Your task to perform on an android device: Add razer thresher to the cart on amazon Image 0: 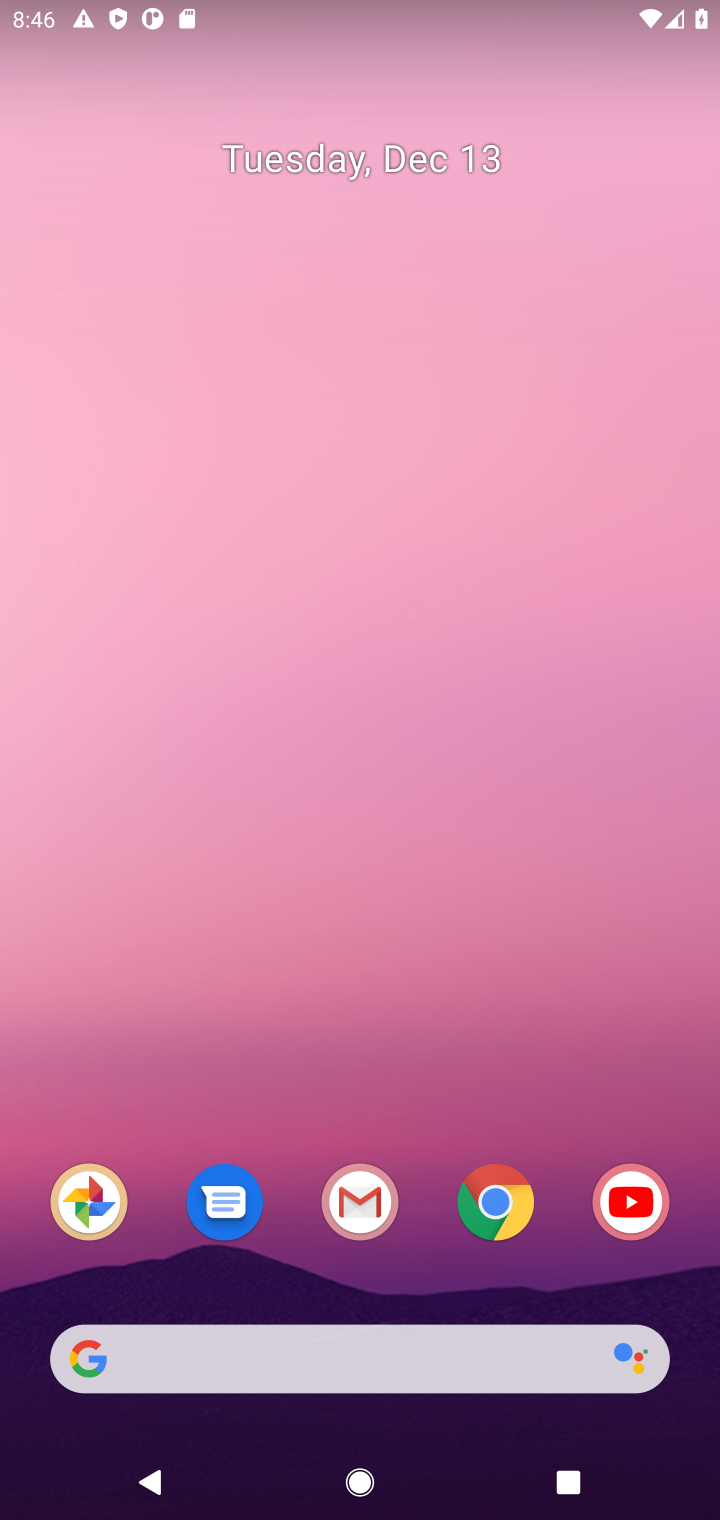
Step 0: click (501, 1221)
Your task to perform on an android device: Add razer thresher to the cart on amazon Image 1: 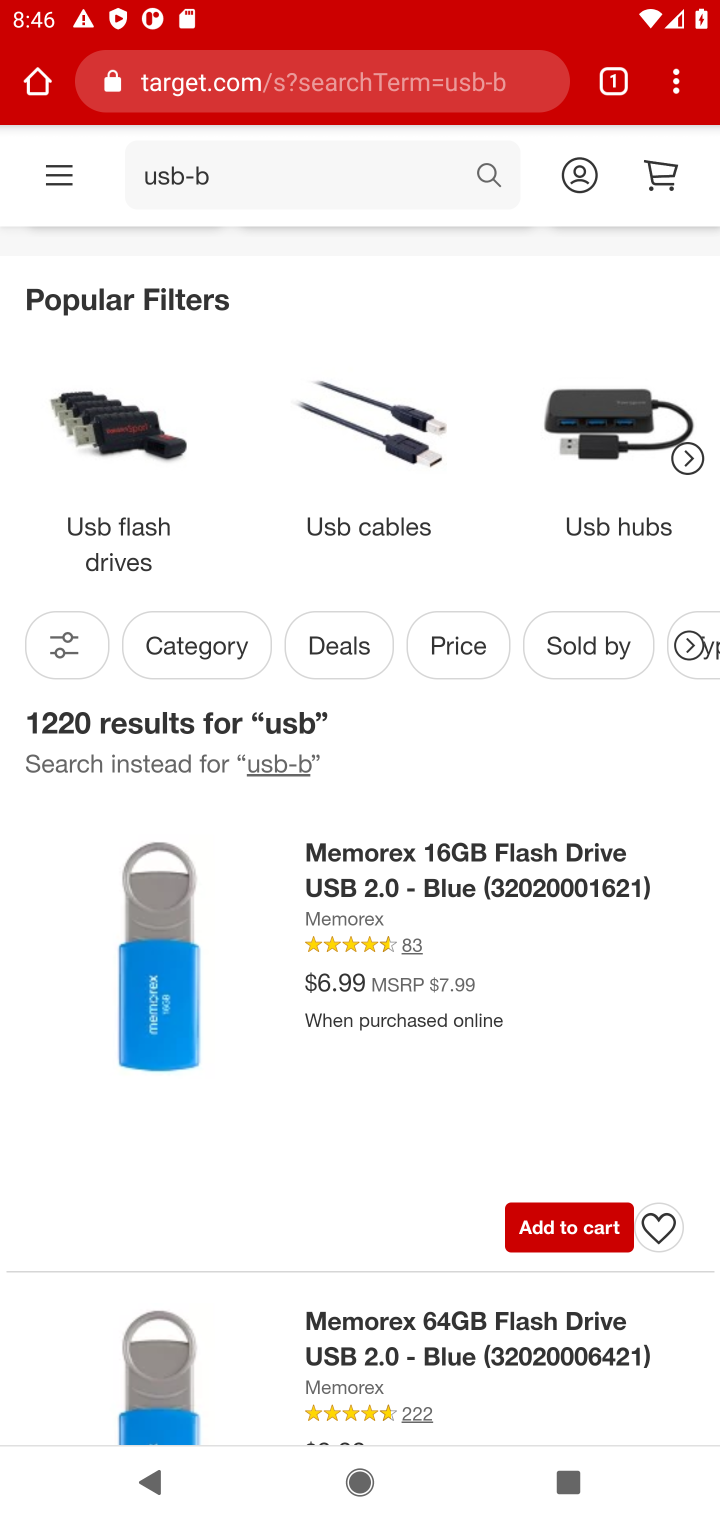
Step 1: click (274, 70)
Your task to perform on an android device: Add razer thresher to the cart on amazon Image 2: 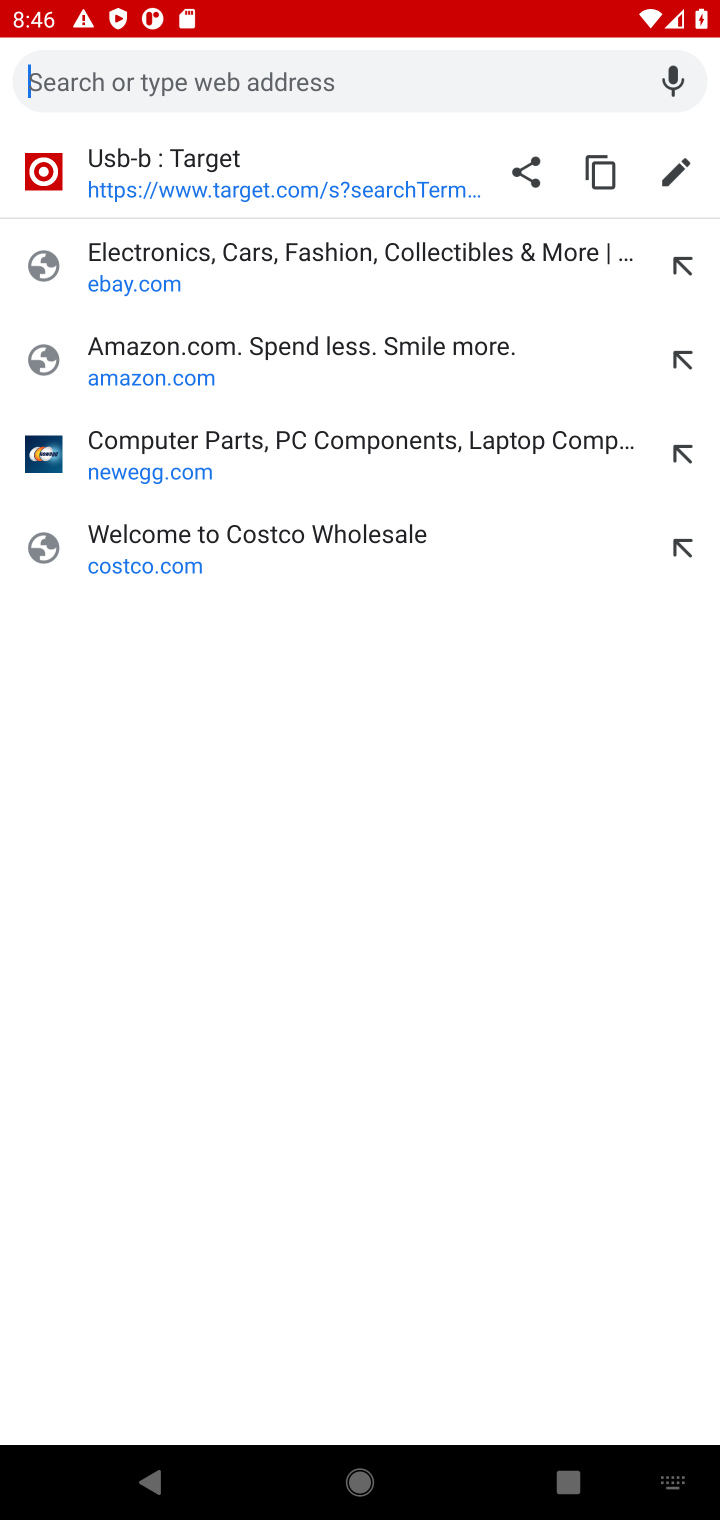
Step 2: click (150, 352)
Your task to perform on an android device: Add razer thresher to the cart on amazon Image 3: 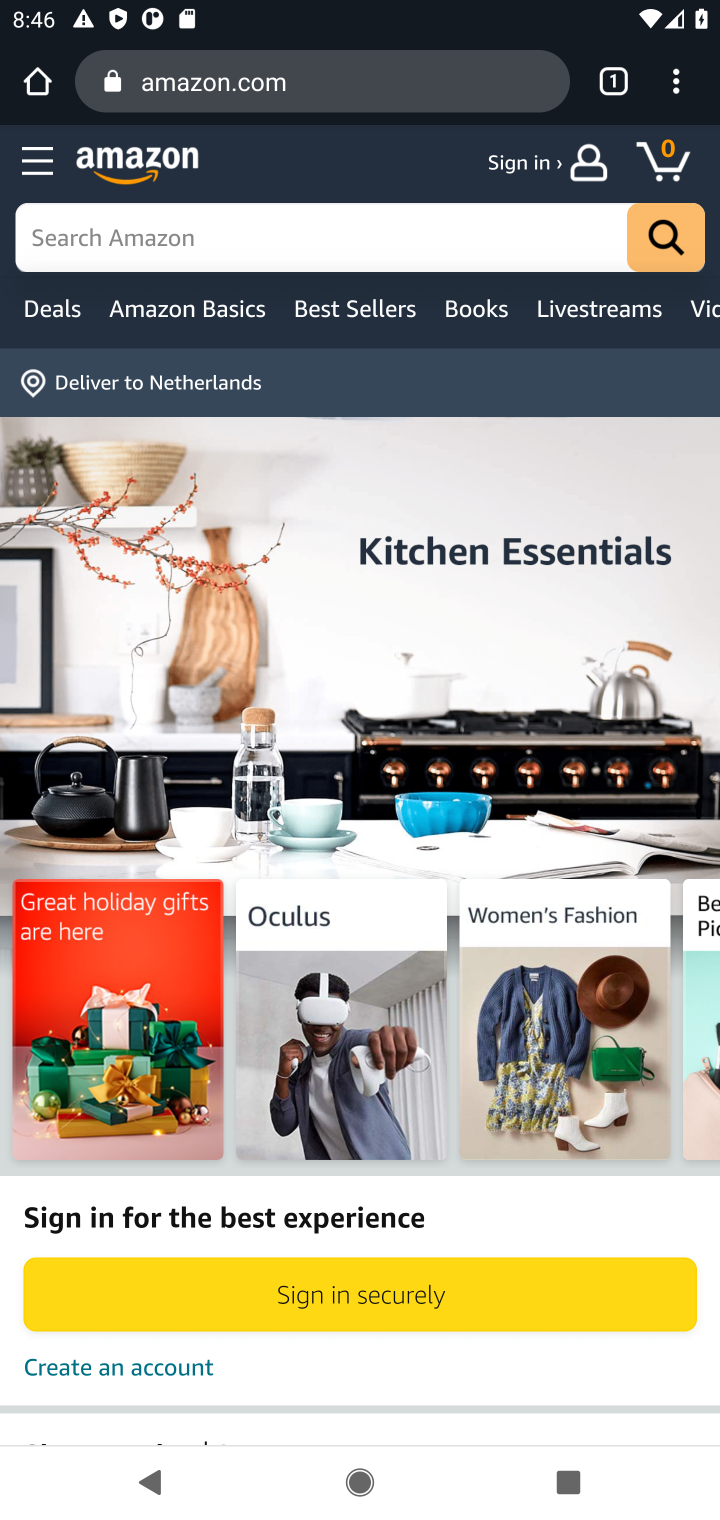
Step 3: click (164, 246)
Your task to perform on an android device: Add razer thresher to the cart on amazon Image 4: 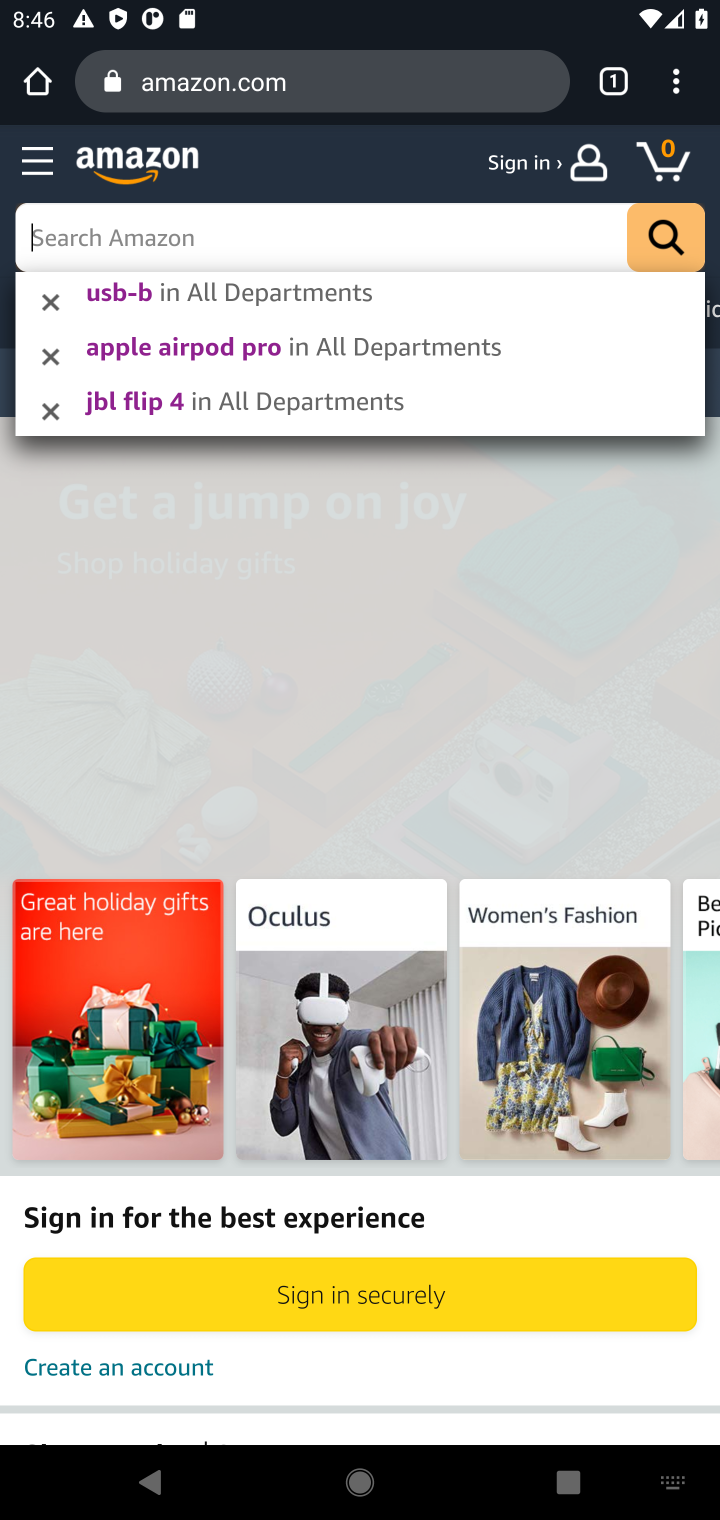
Step 4: type "razer thresher"
Your task to perform on an android device: Add razer thresher to the cart on amazon Image 5: 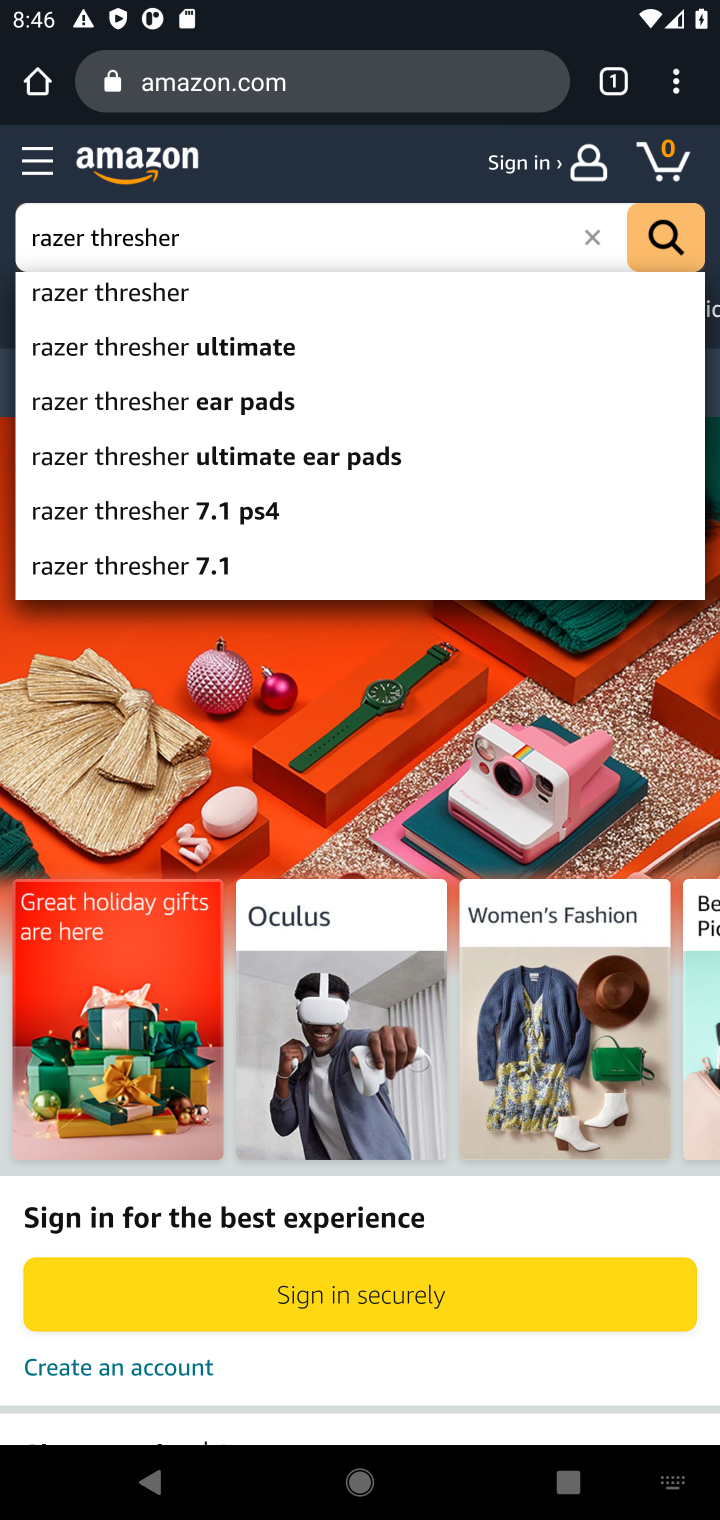
Step 5: click (172, 286)
Your task to perform on an android device: Add razer thresher to the cart on amazon Image 6: 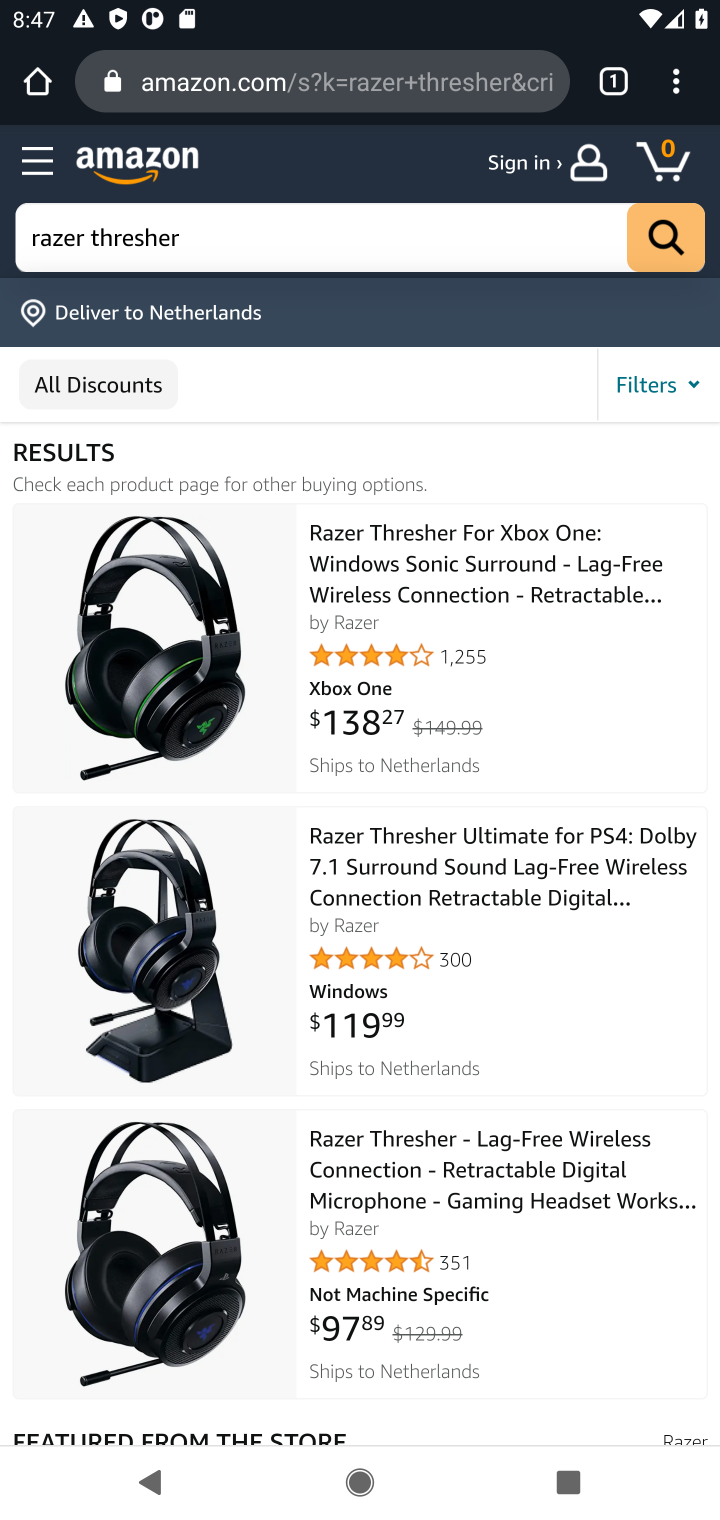
Step 6: click (350, 588)
Your task to perform on an android device: Add razer thresher to the cart on amazon Image 7: 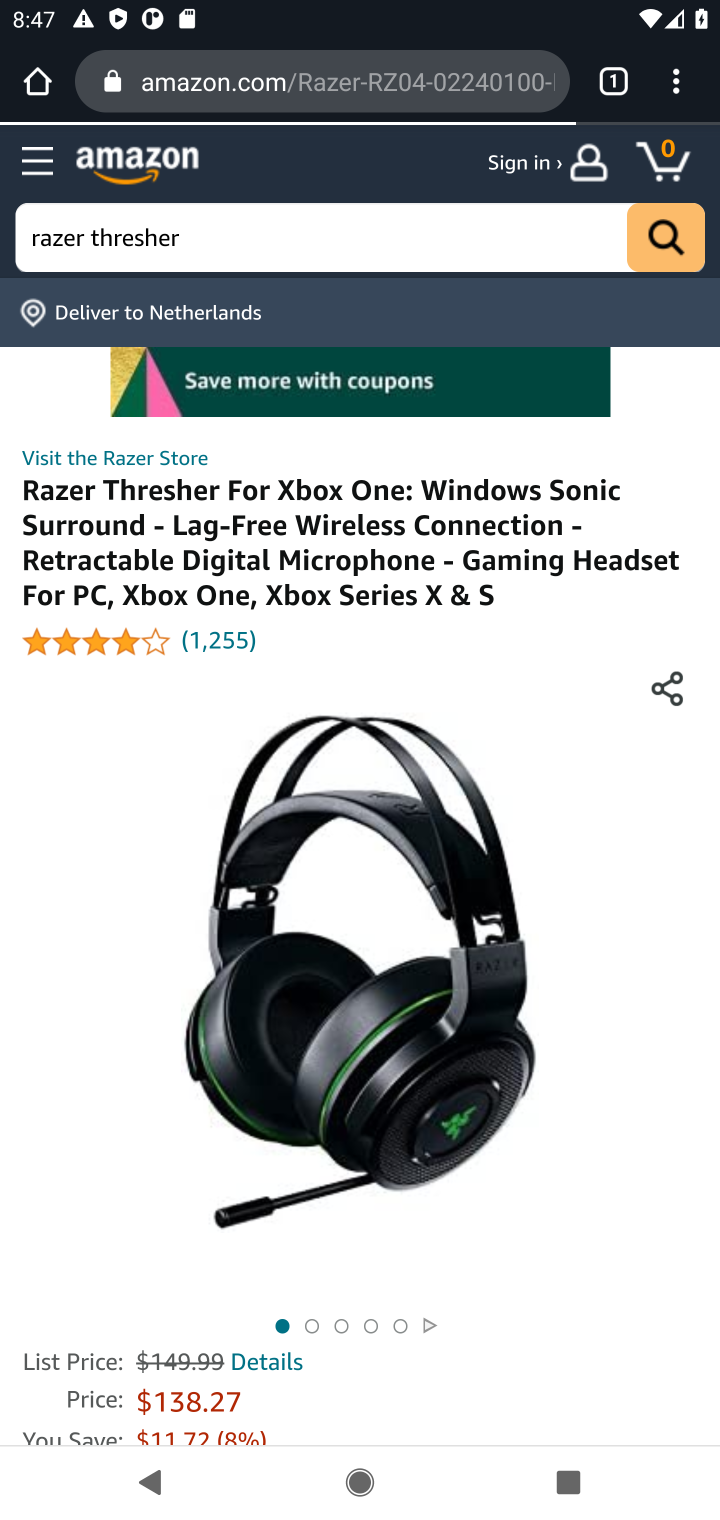
Step 7: drag from (446, 1057) to (422, 506)
Your task to perform on an android device: Add razer thresher to the cart on amazon Image 8: 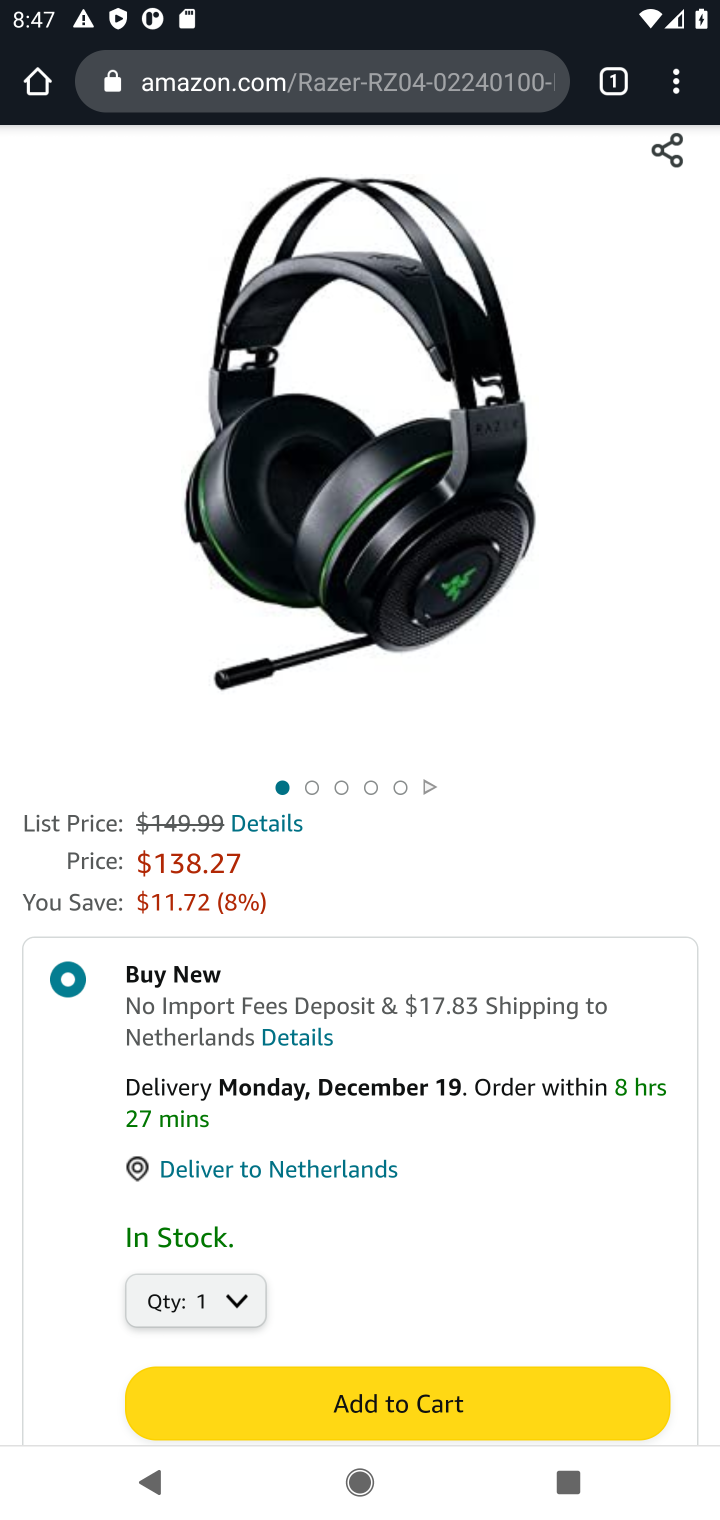
Step 8: drag from (437, 1092) to (437, 857)
Your task to perform on an android device: Add razer thresher to the cart on amazon Image 9: 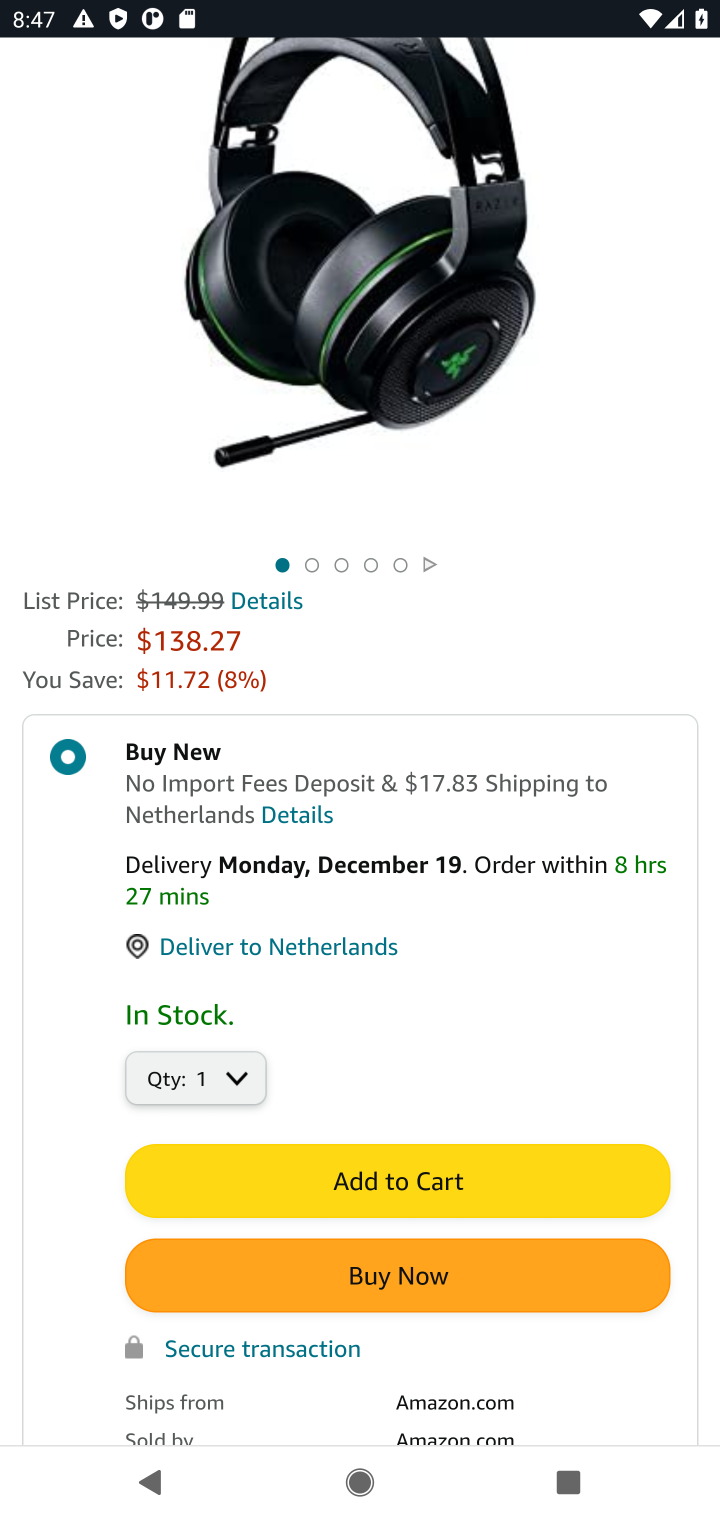
Step 9: click (341, 1188)
Your task to perform on an android device: Add razer thresher to the cart on amazon Image 10: 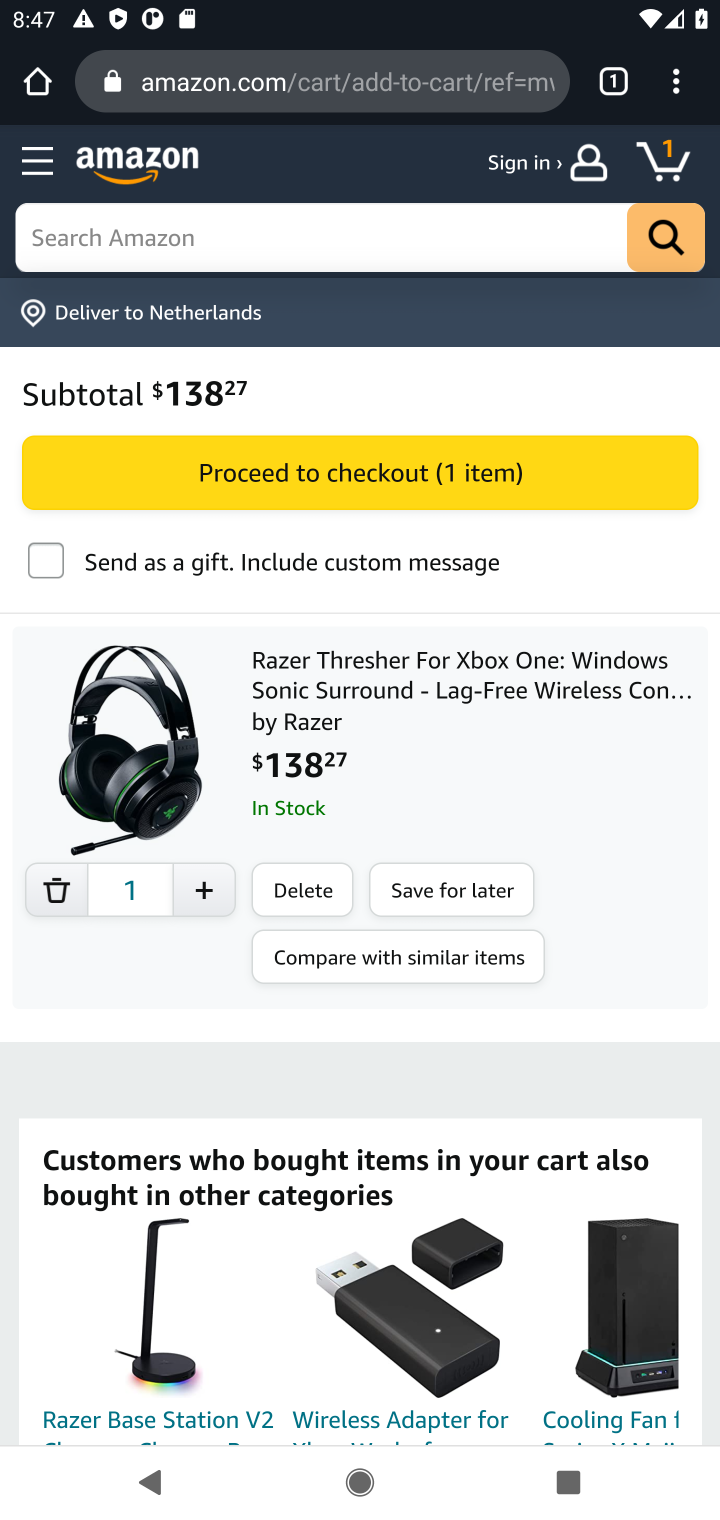
Step 10: task complete